Your task to perform on an android device: Do I have any events this weekend? Image 0: 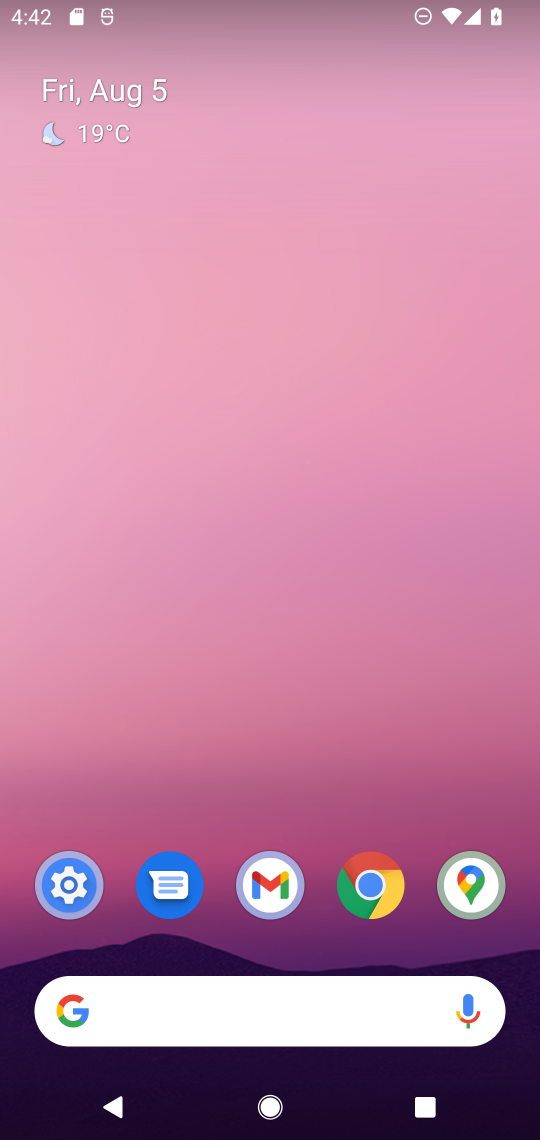
Step 0: drag from (345, 922) to (333, 27)
Your task to perform on an android device: Do I have any events this weekend? Image 1: 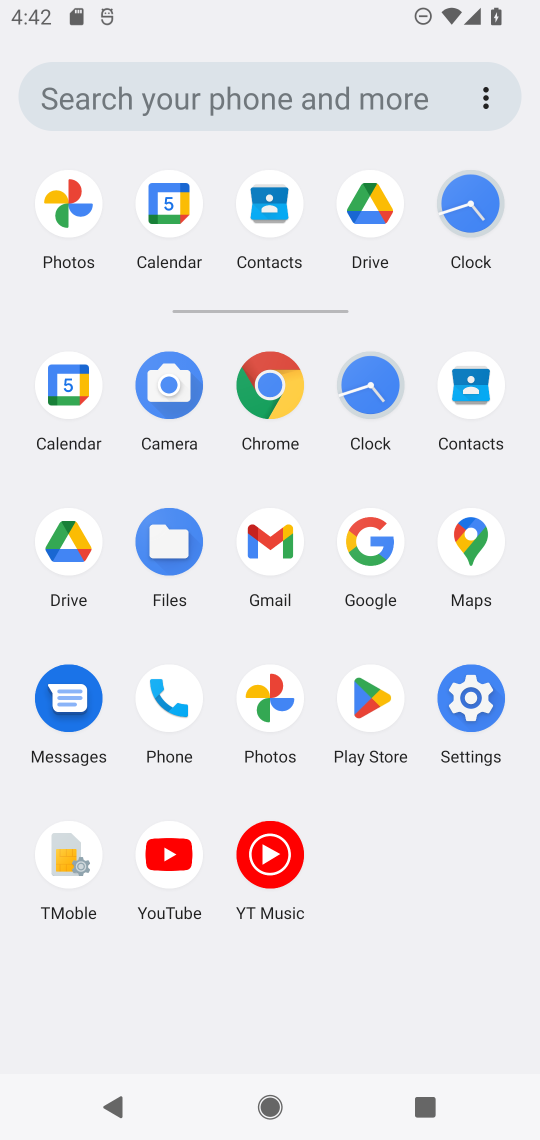
Step 1: click (58, 366)
Your task to perform on an android device: Do I have any events this weekend? Image 2: 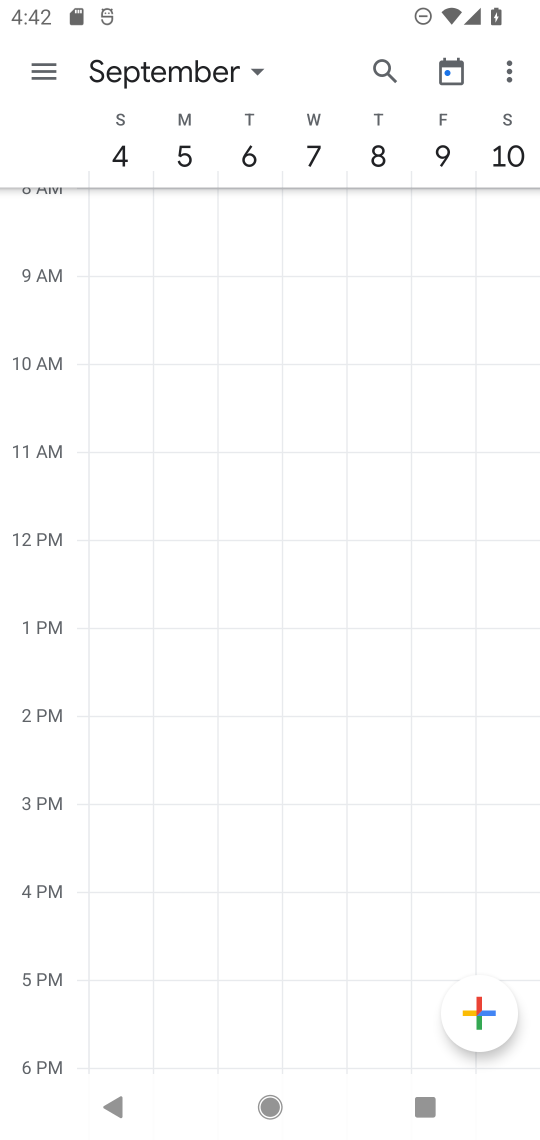
Step 2: click (250, 67)
Your task to perform on an android device: Do I have any events this weekend? Image 3: 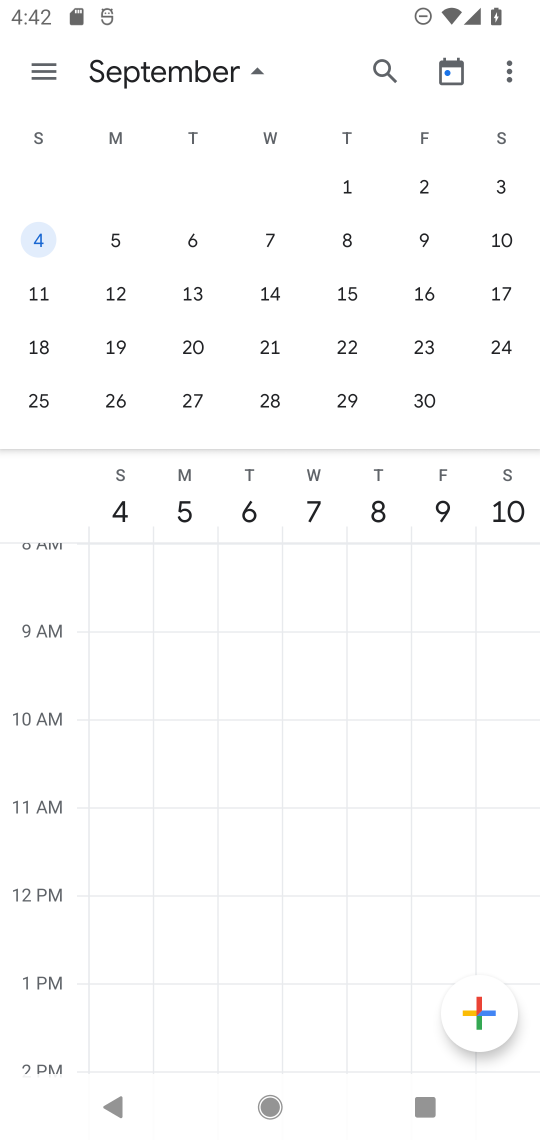
Step 3: drag from (46, 319) to (465, 308)
Your task to perform on an android device: Do I have any events this weekend? Image 4: 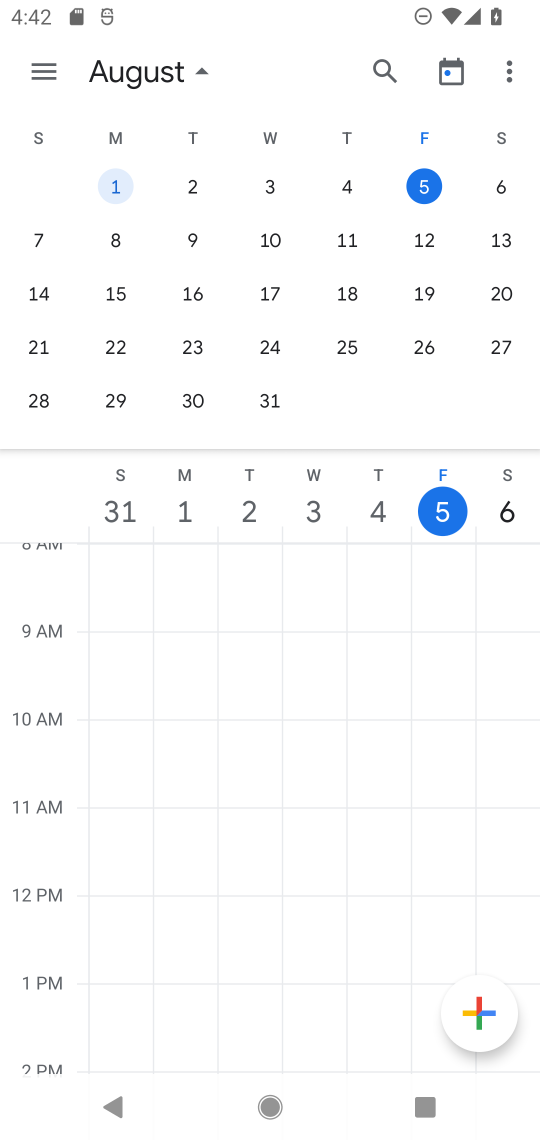
Step 4: click (500, 182)
Your task to perform on an android device: Do I have any events this weekend? Image 5: 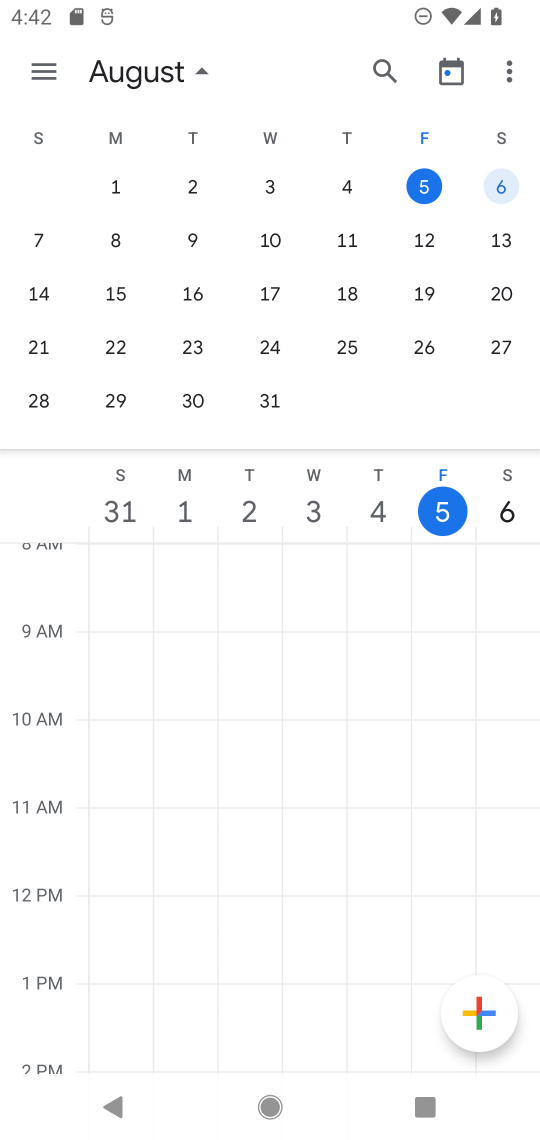
Step 5: click (51, 55)
Your task to perform on an android device: Do I have any events this weekend? Image 6: 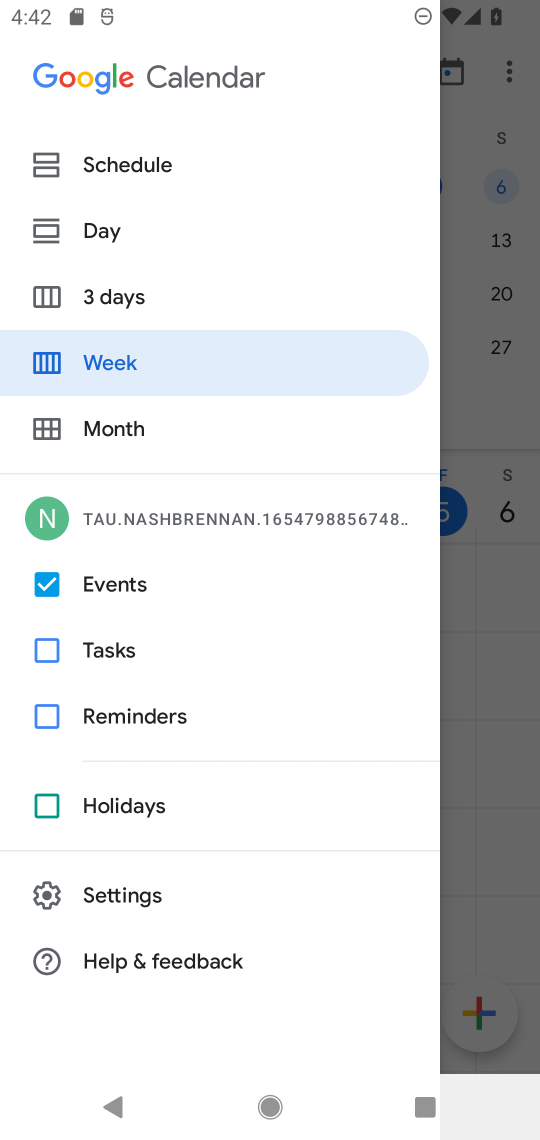
Step 6: click (138, 363)
Your task to perform on an android device: Do I have any events this weekend? Image 7: 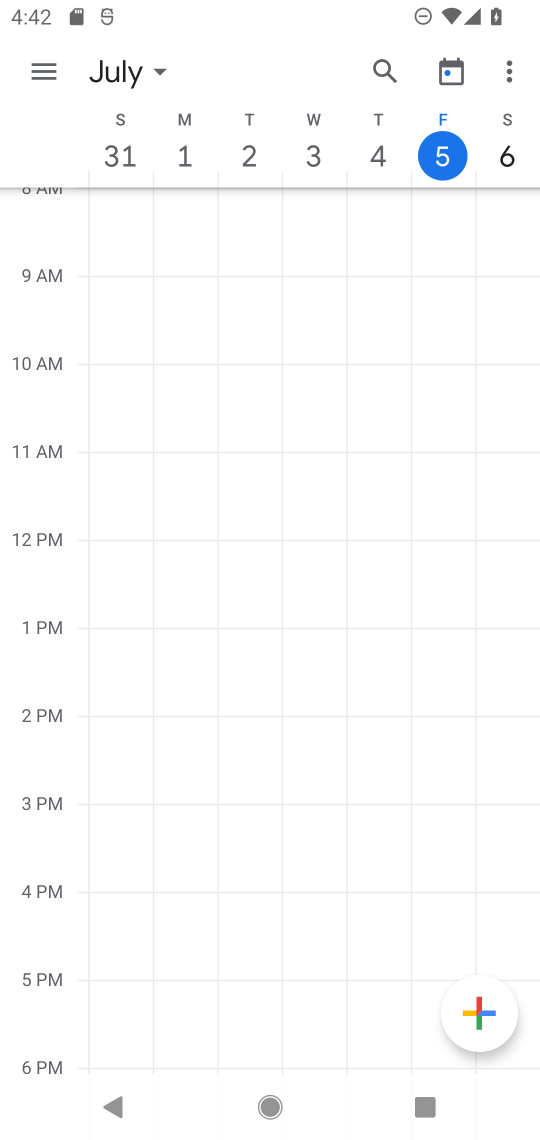
Step 7: task complete